Your task to perform on an android device: check data usage Image 0: 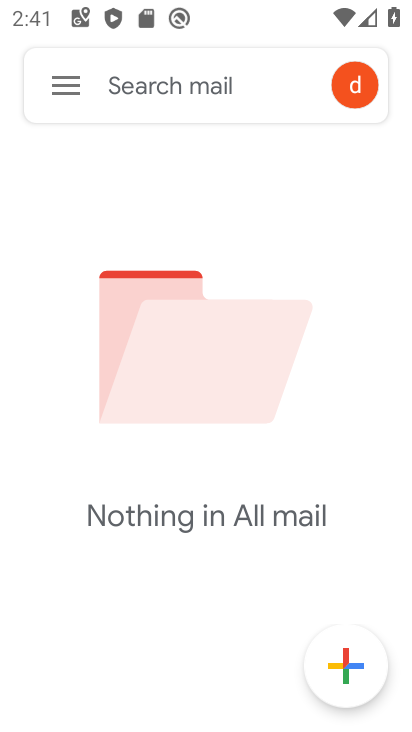
Step 0: press home button
Your task to perform on an android device: check data usage Image 1: 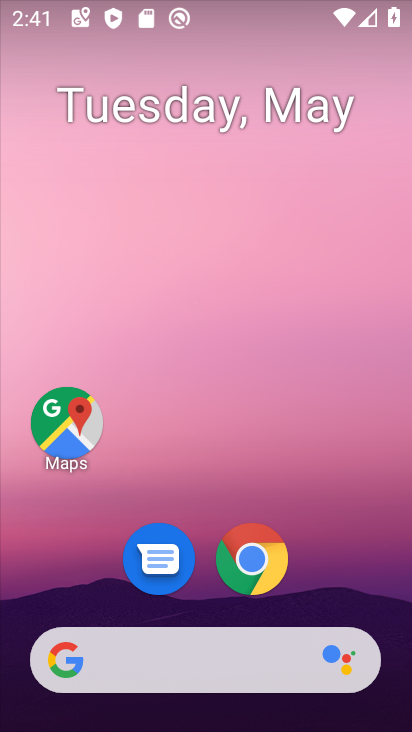
Step 1: drag from (227, 670) to (264, 99)
Your task to perform on an android device: check data usage Image 2: 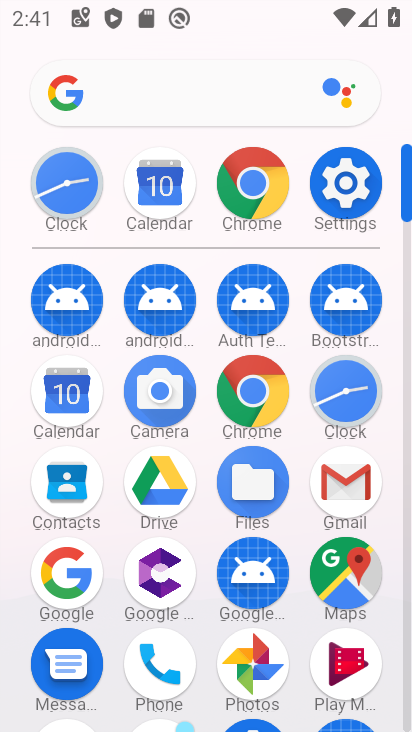
Step 2: click (349, 189)
Your task to perform on an android device: check data usage Image 3: 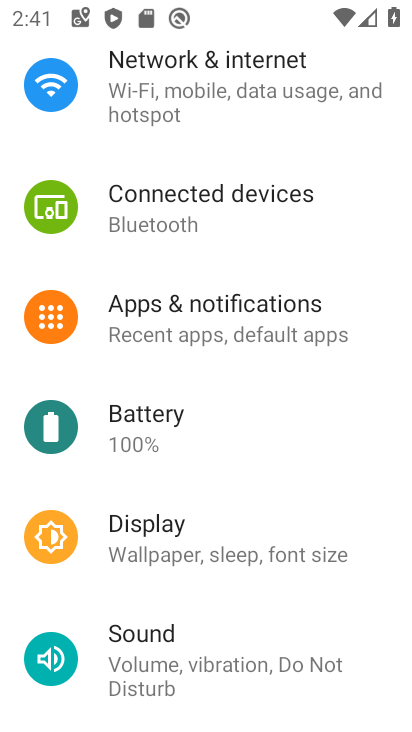
Step 3: click (244, 79)
Your task to perform on an android device: check data usage Image 4: 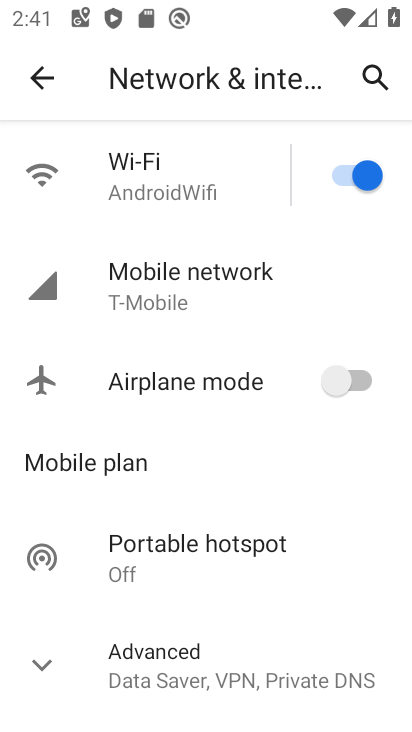
Step 4: click (154, 196)
Your task to perform on an android device: check data usage Image 5: 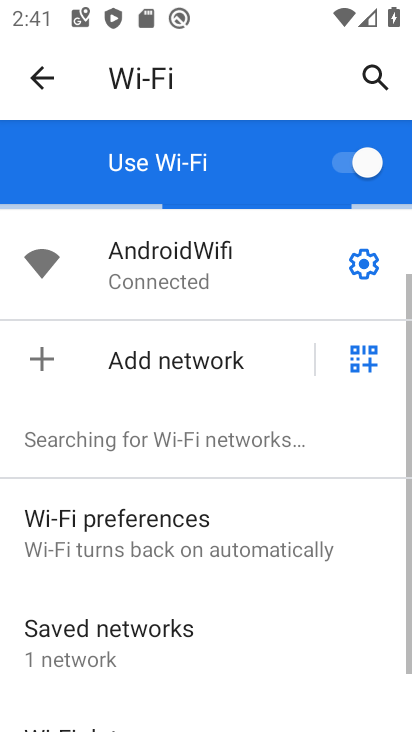
Step 5: drag from (181, 618) to (294, 166)
Your task to perform on an android device: check data usage Image 6: 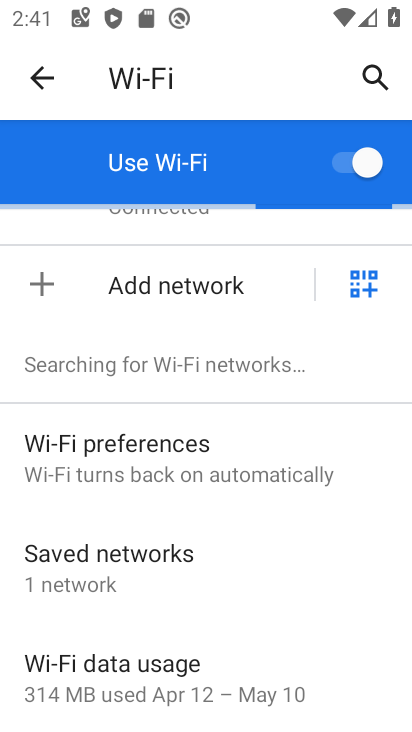
Step 6: click (155, 667)
Your task to perform on an android device: check data usage Image 7: 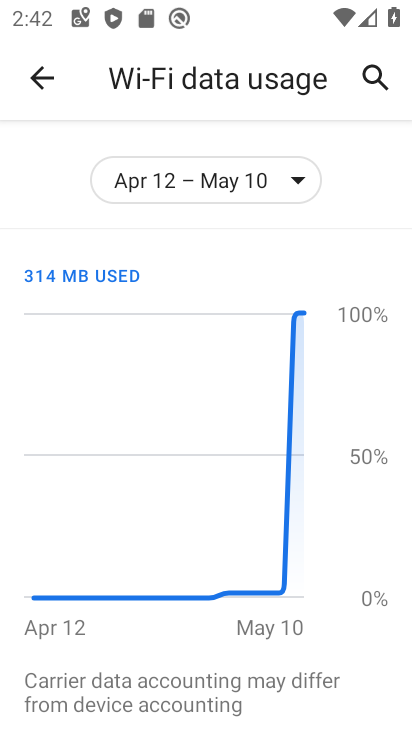
Step 7: task complete